Your task to perform on an android device: toggle javascript in the chrome app Image 0: 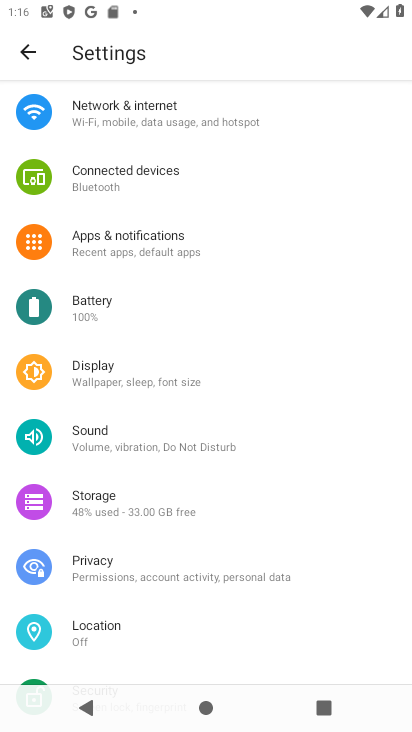
Step 0: press home button
Your task to perform on an android device: toggle javascript in the chrome app Image 1: 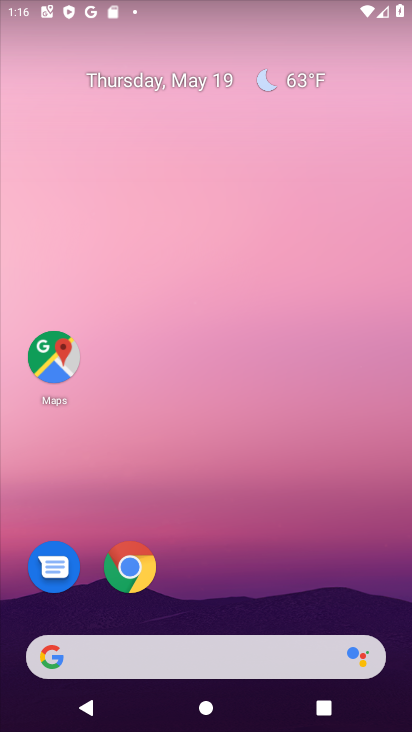
Step 1: drag from (295, 432) to (298, 54)
Your task to perform on an android device: toggle javascript in the chrome app Image 2: 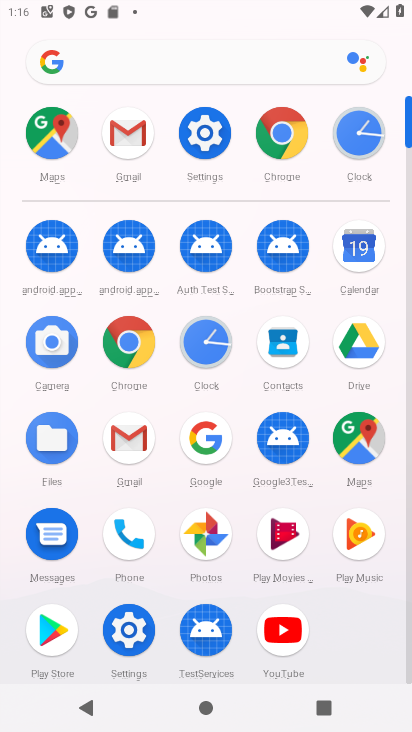
Step 2: click (292, 131)
Your task to perform on an android device: toggle javascript in the chrome app Image 3: 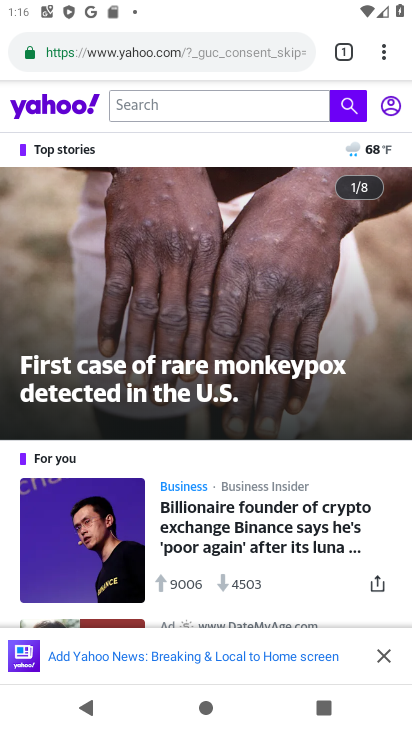
Step 3: drag from (387, 60) to (248, 607)
Your task to perform on an android device: toggle javascript in the chrome app Image 4: 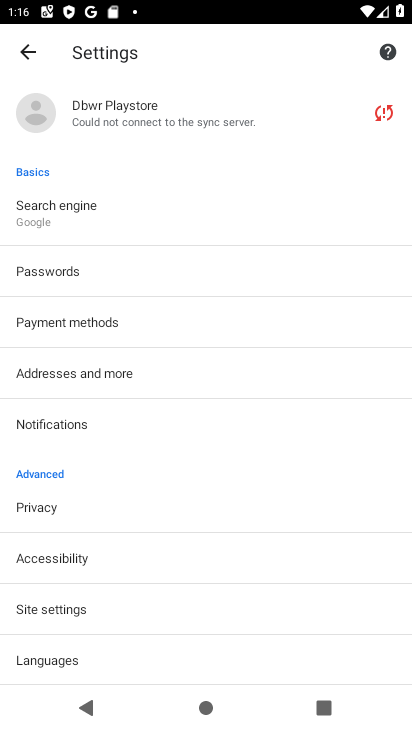
Step 4: drag from (128, 618) to (95, 304)
Your task to perform on an android device: toggle javascript in the chrome app Image 5: 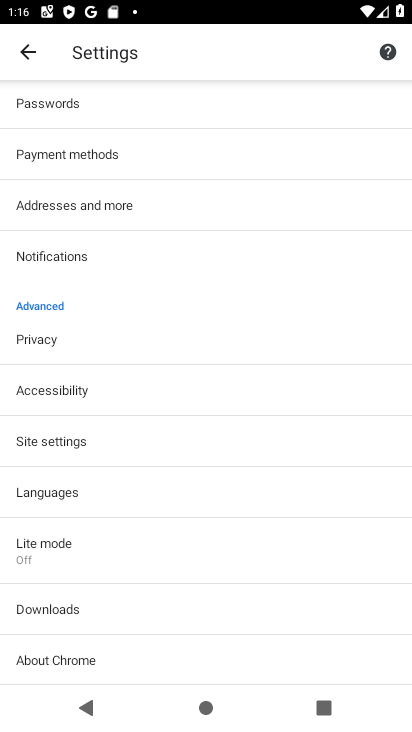
Step 5: click (98, 453)
Your task to perform on an android device: toggle javascript in the chrome app Image 6: 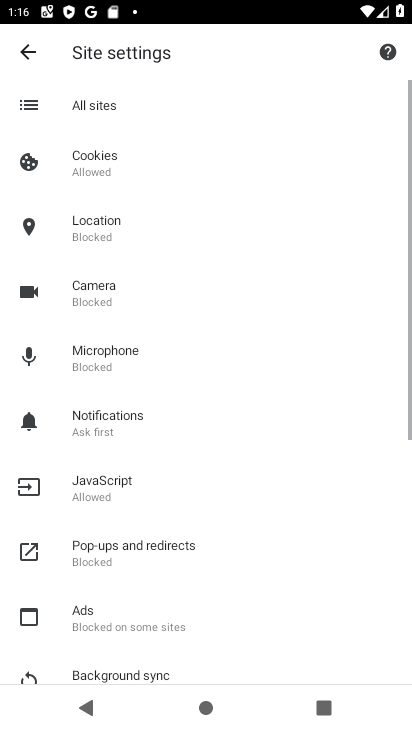
Step 6: click (106, 477)
Your task to perform on an android device: toggle javascript in the chrome app Image 7: 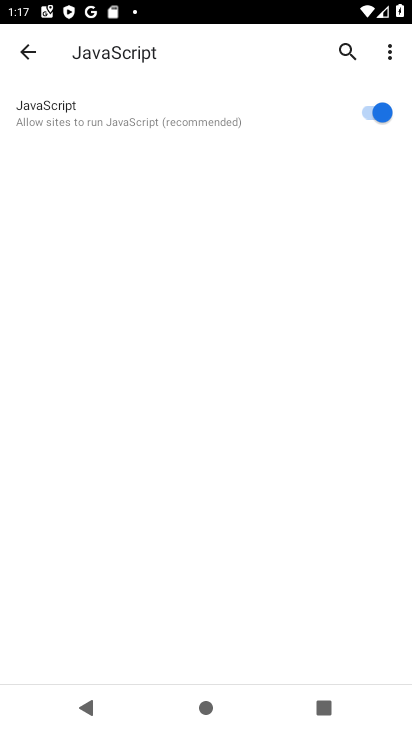
Step 7: click (374, 110)
Your task to perform on an android device: toggle javascript in the chrome app Image 8: 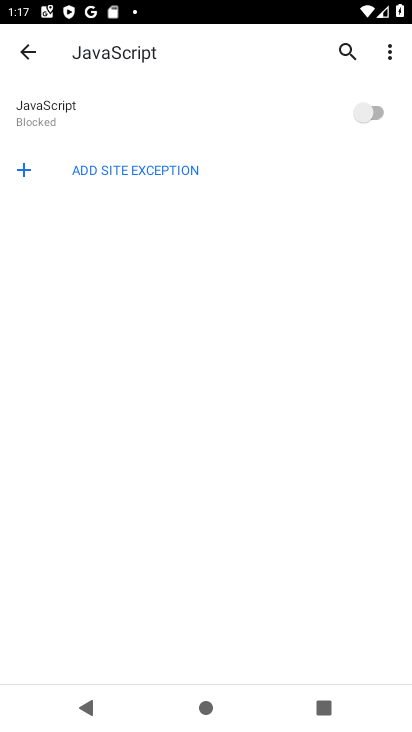
Step 8: task complete